Your task to perform on an android device: Show me the alarms in the clock app Image 0: 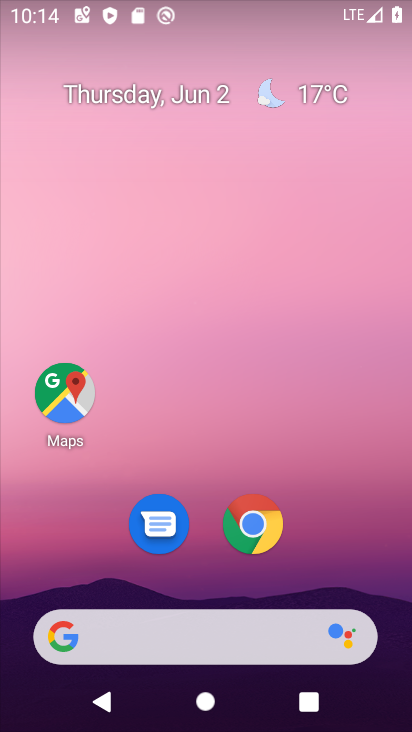
Step 0: drag from (209, 438) to (191, 0)
Your task to perform on an android device: Show me the alarms in the clock app Image 1: 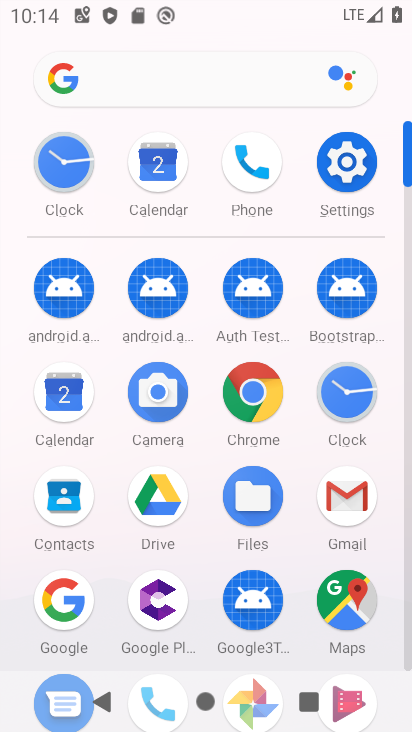
Step 1: click (61, 161)
Your task to perform on an android device: Show me the alarms in the clock app Image 2: 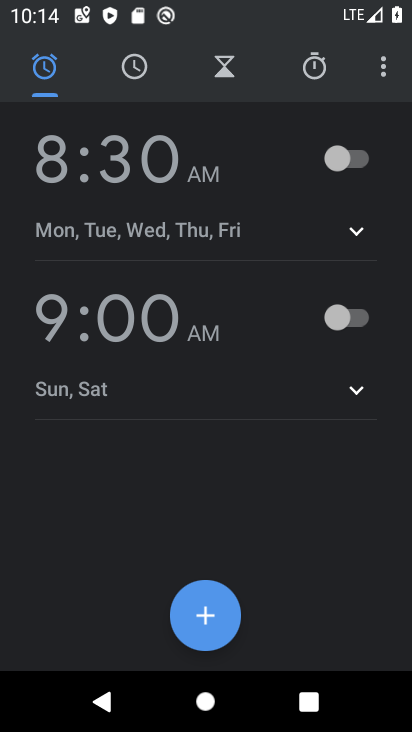
Step 2: task complete